Your task to perform on an android device: Add "macbook" to the cart on walmart.com Image 0: 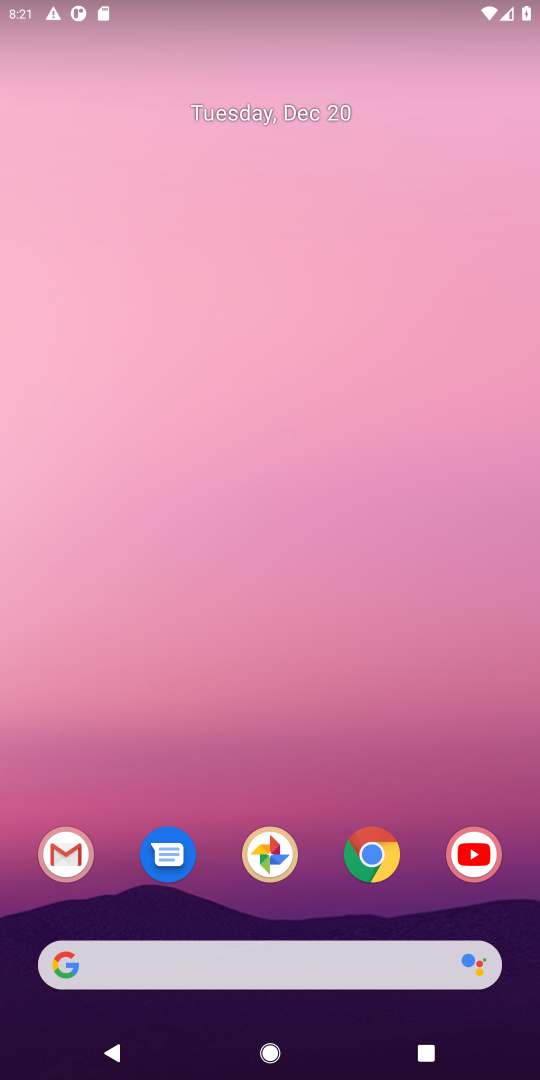
Step 0: click (375, 861)
Your task to perform on an android device: Add "macbook" to the cart on walmart.com Image 1: 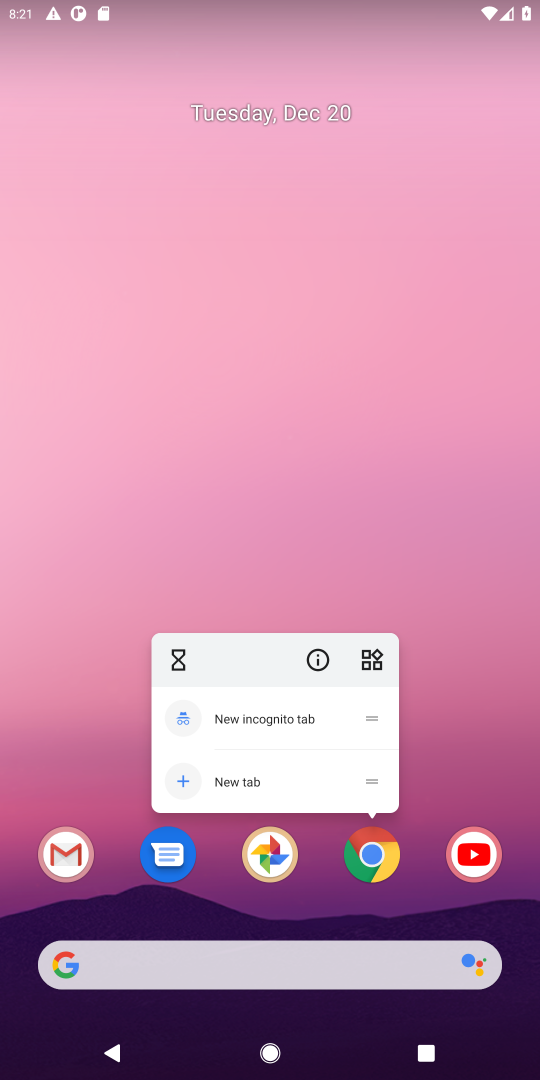
Step 1: click (375, 861)
Your task to perform on an android device: Add "macbook" to the cart on walmart.com Image 2: 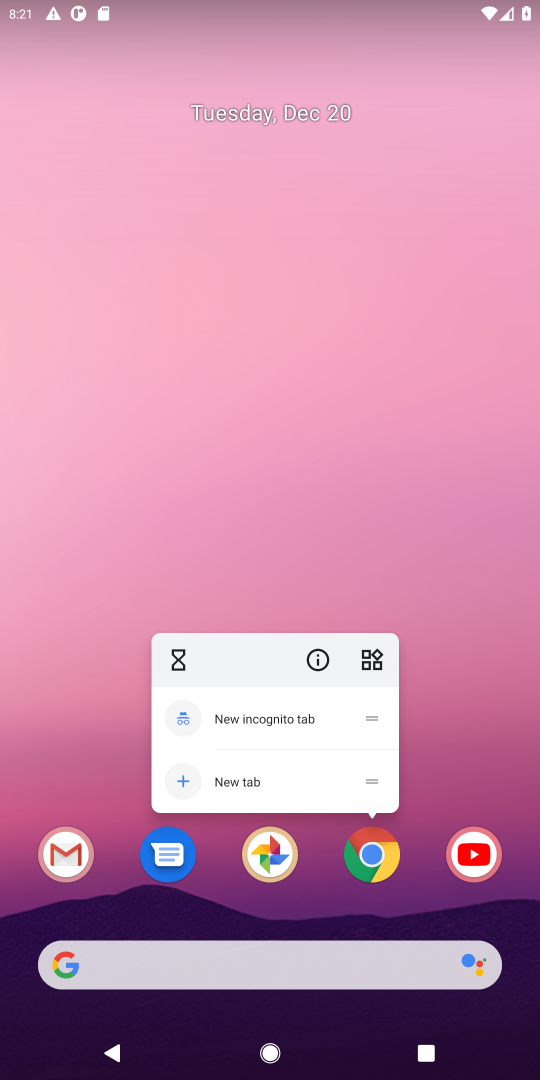
Step 2: click (375, 861)
Your task to perform on an android device: Add "macbook" to the cart on walmart.com Image 3: 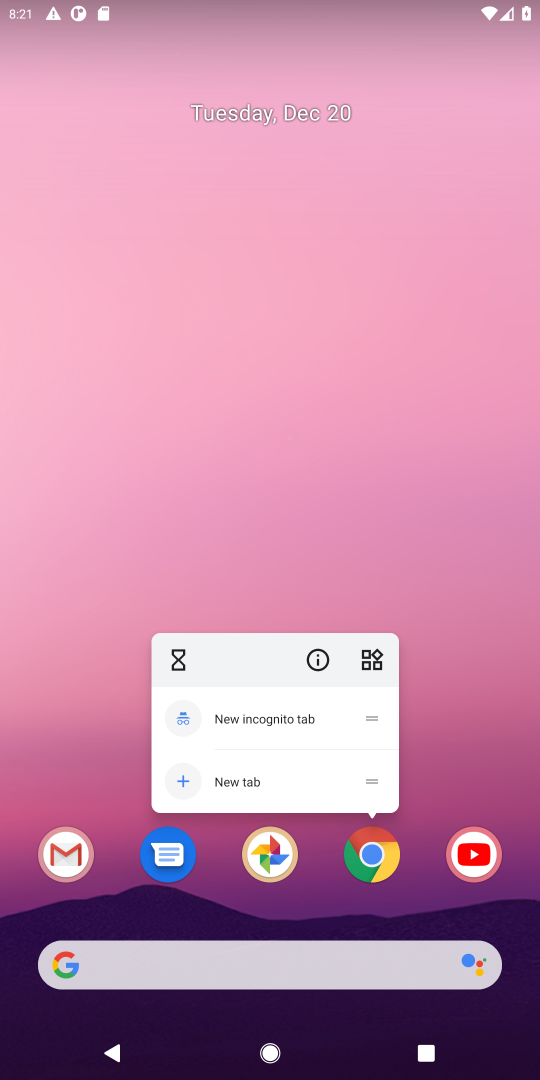
Step 3: click (375, 861)
Your task to perform on an android device: Add "macbook" to the cart on walmart.com Image 4: 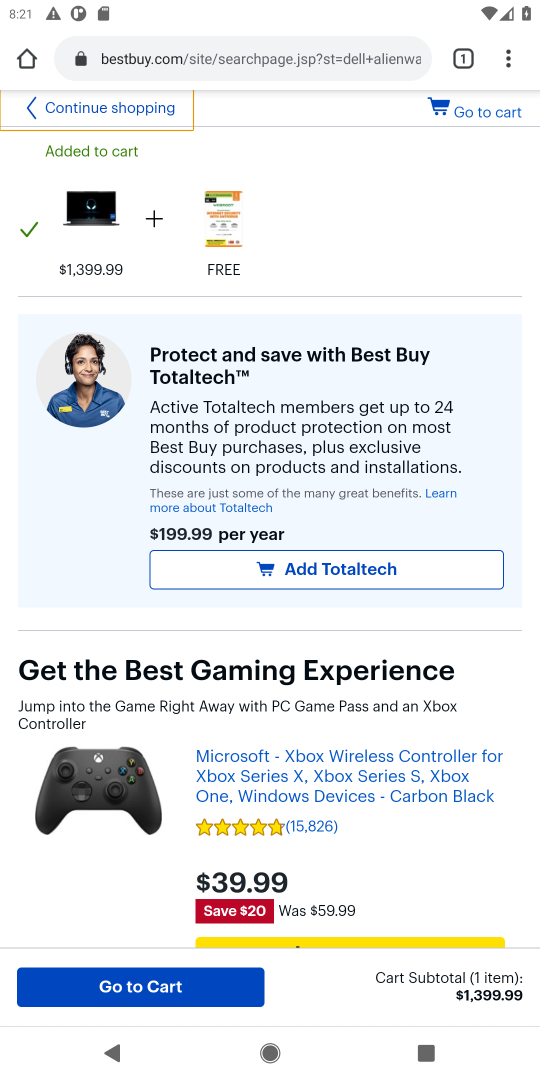
Step 4: click (187, 63)
Your task to perform on an android device: Add "macbook" to the cart on walmart.com Image 5: 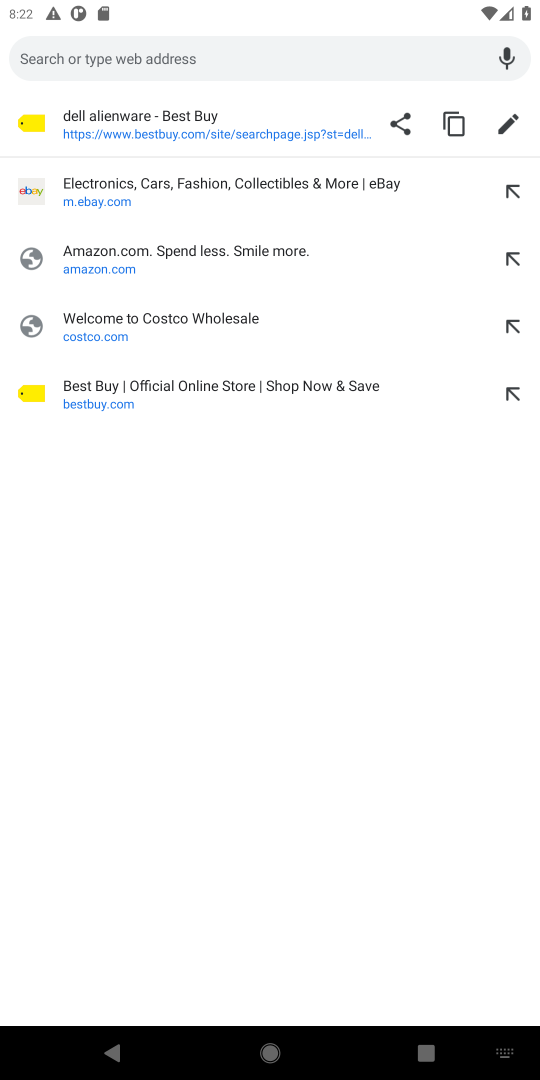
Step 5: type "walmart.com"
Your task to perform on an android device: Add "macbook" to the cart on walmart.com Image 6: 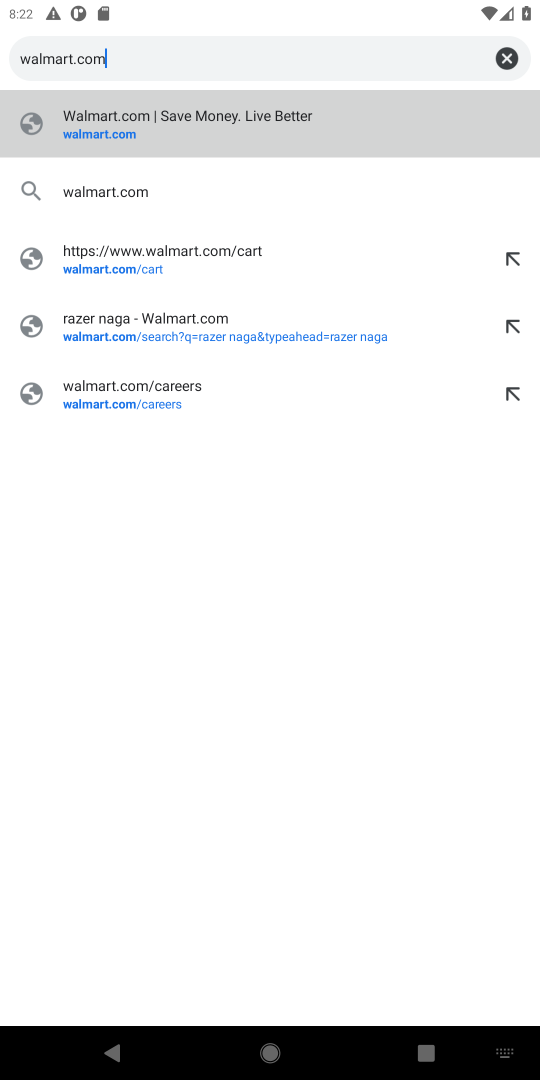
Step 6: click (107, 138)
Your task to perform on an android device: Add "macbook" to the cart on walmart.com Image 7: 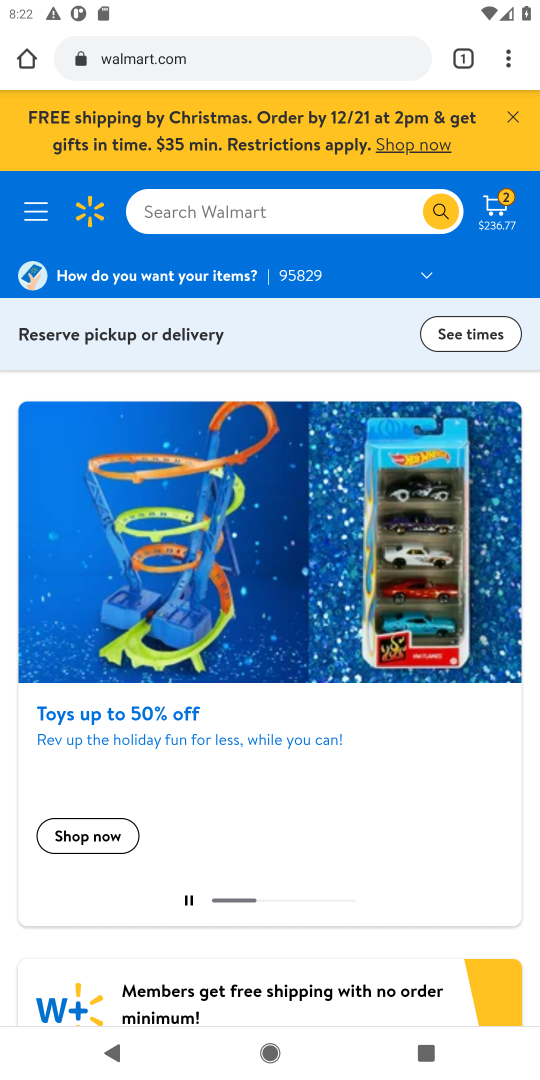
Step 7: click (258, 195)
Your task to perform on an android device: Add "macbook" to the cart on walmart.com Image 8: 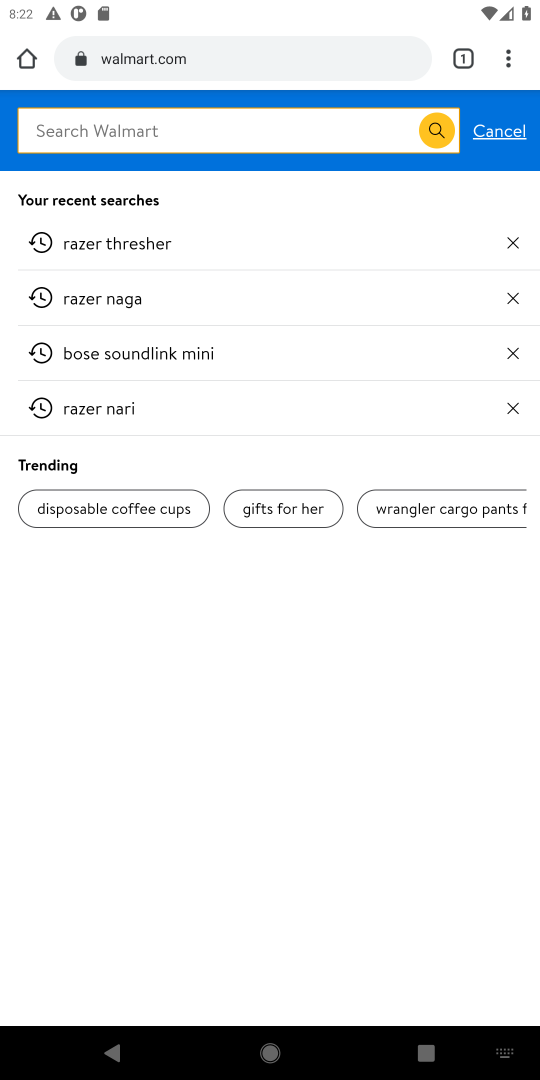
Step 8: type "macbook"
Your task to perform on an android device: Add "macbook" to the cart on walmart.com Image 9: 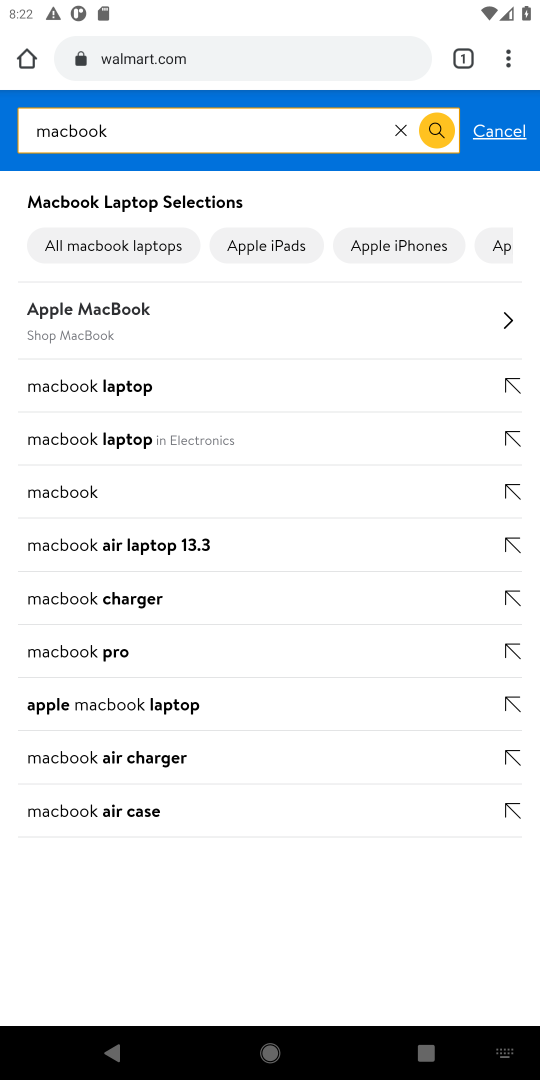
Step 9: click (72, 499)
Your task to perform on an android device: Add "macbook" to the cart on walmart.com Image 10: 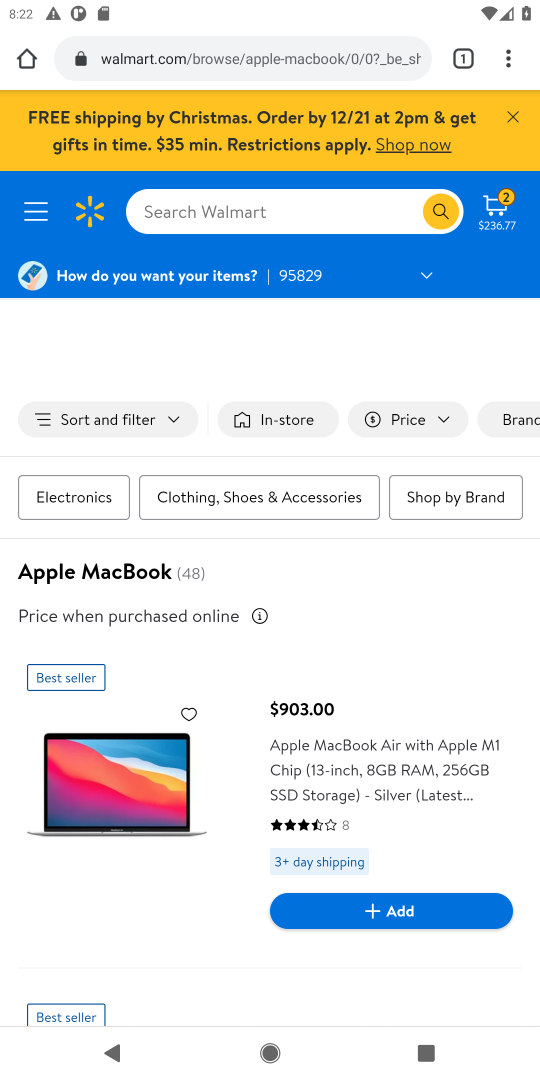
Step 10: click (358, 921)
Your task to perform on an android device: Add "macbook" to the cart on walmart.com Image 11: 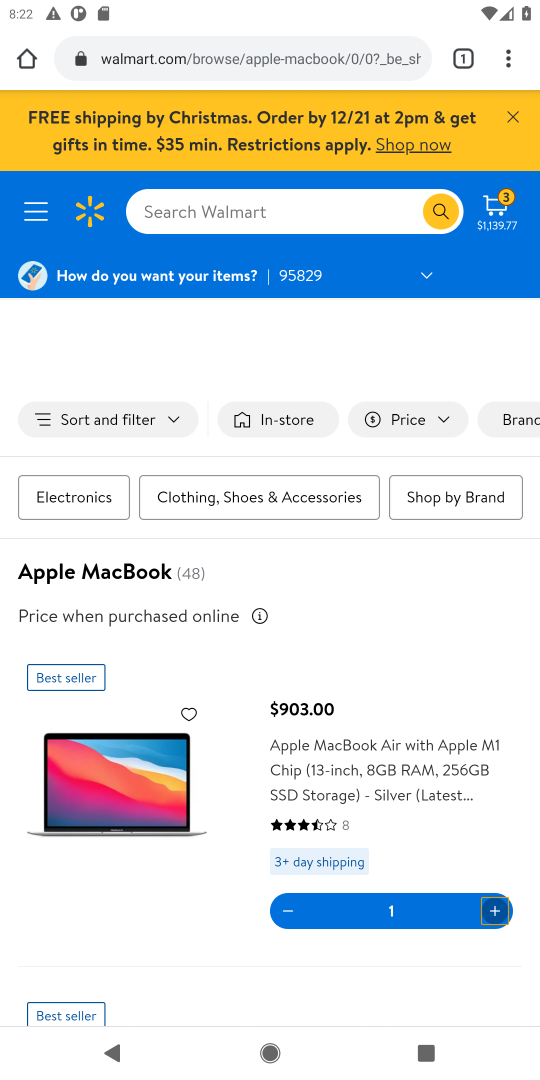
Step 11: task complete